Your task to perform on an android device: Go to calendar. Show me events next week Image 0: 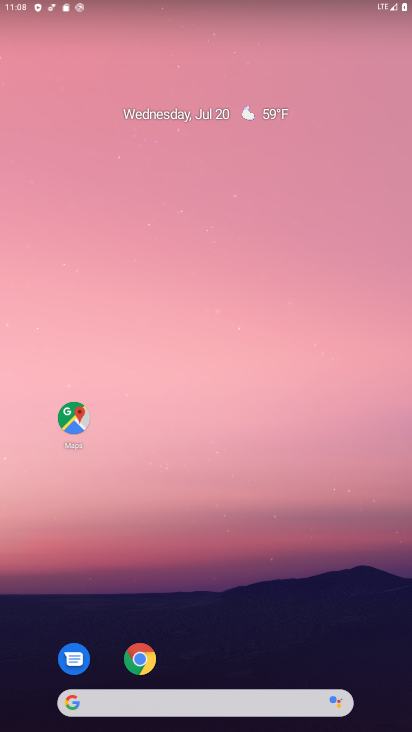
Step 0: drag from (211, 730) to (249, 119)
Your task to perform on an android device: Go to calendar. Show me events next week Image 1: 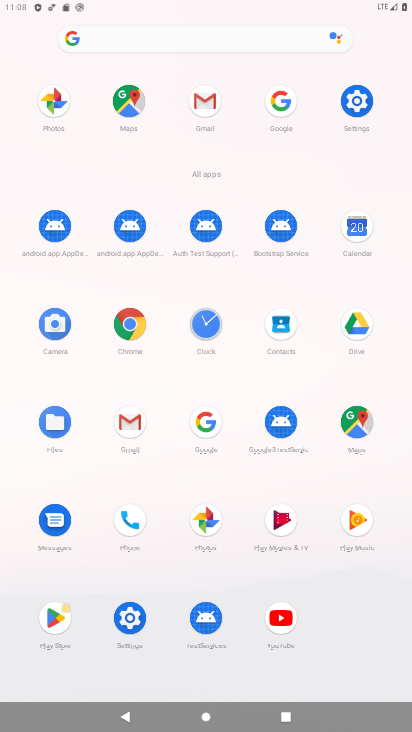
Step 1: click (358, 220)
Your task to perform on an android device: Go to calendar. Show me events next week Image 2: 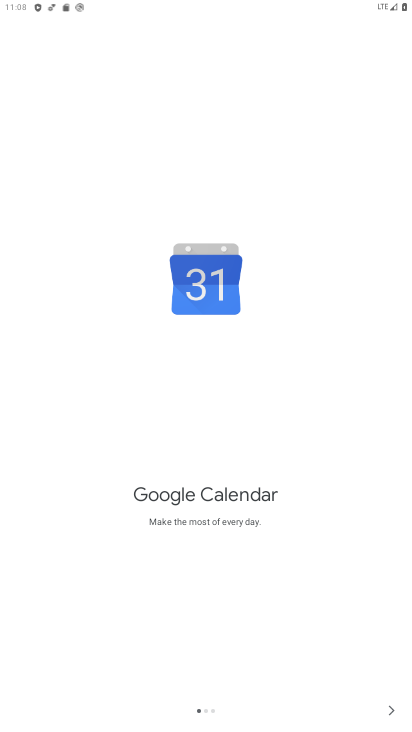
Step 2: click (394, 709)
Your task to perform on an android device: Go to calendar. Show me events next week Image 3: 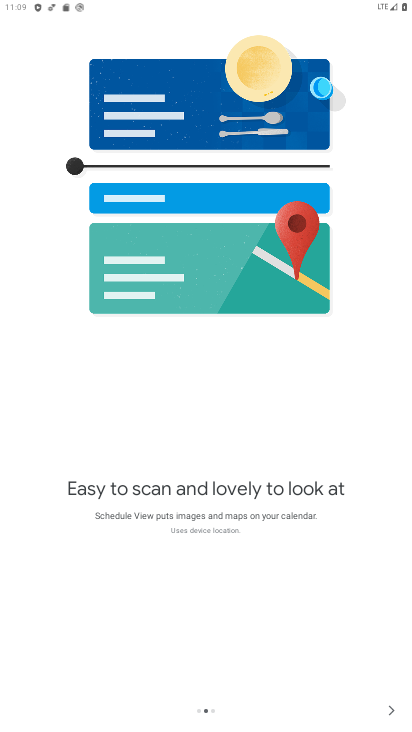
Step 3: click (391, 707)
Your task to perform on an android device: Go to calendar. Show me events next week Image 4: 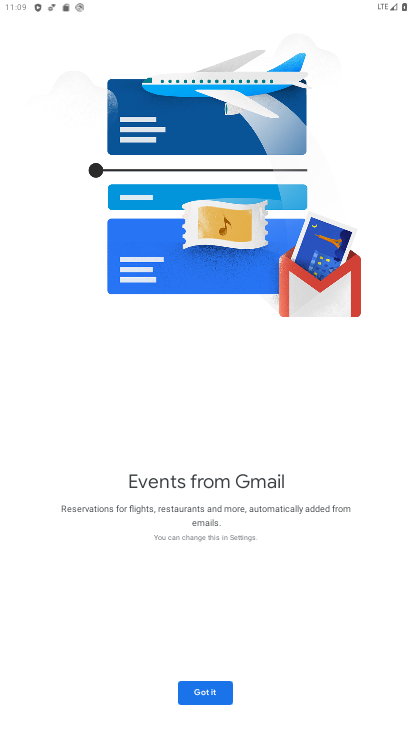
Step 4: click (204, 698)
Your task to perform on an android device: Go to calendar. Show me events next week Image 5: 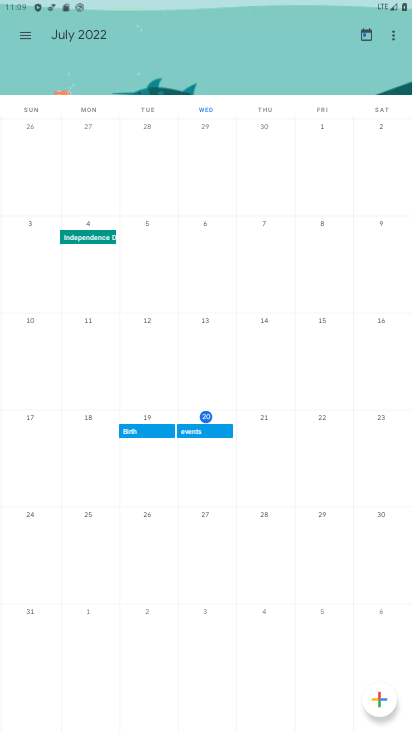
Step 5: click (16, 24)
Your task to perform on an android device: Go to calendar. Show me events next week Image 6: 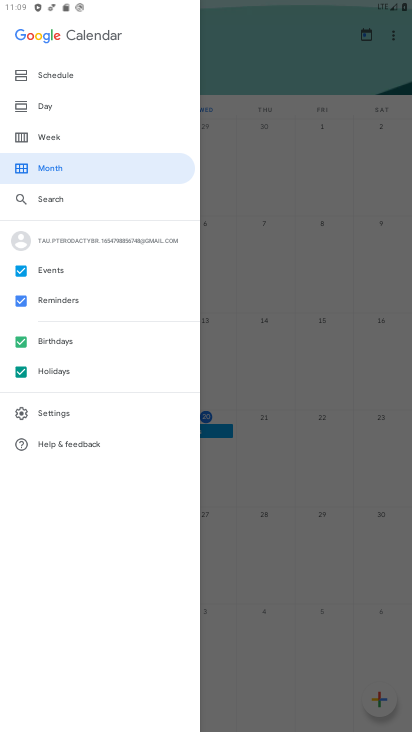
Step 6: click (21, 372)
Your task to perform on an android device: Go to calendar. Show me events next week Image 7: 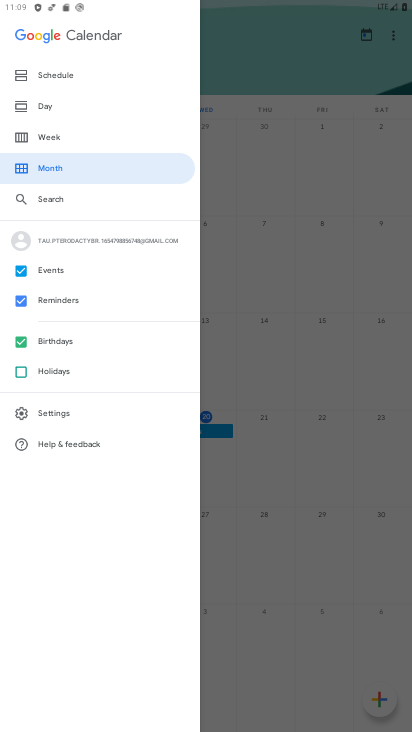
Step 7: click (22, 340)
Your task to perform on an android device: Go to calendar. Show me events next week Image 8: 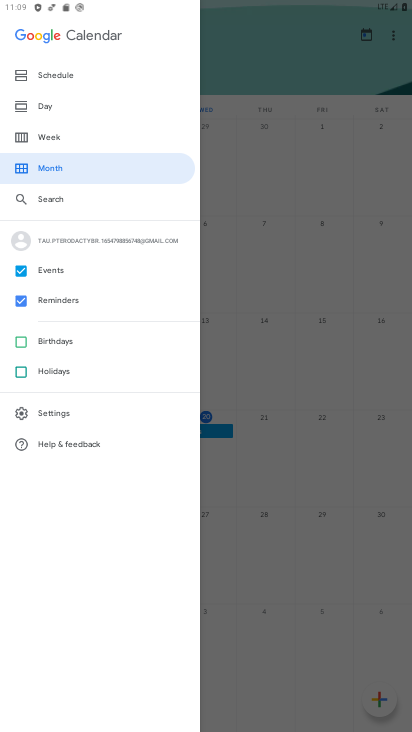
Step 8: click (26, 299)
Your task to perform on an android device: Go to calendar. Show me events next week Image 9: 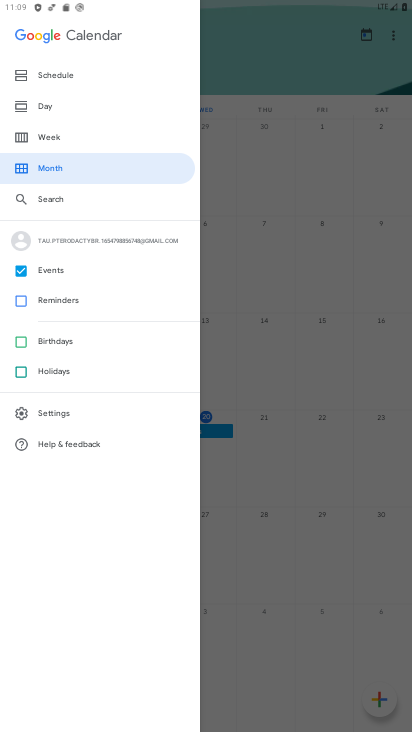
Step 9: click (55, 135)
Your task to perform on an android device: Go to calendar. Show me events next week Image 10: 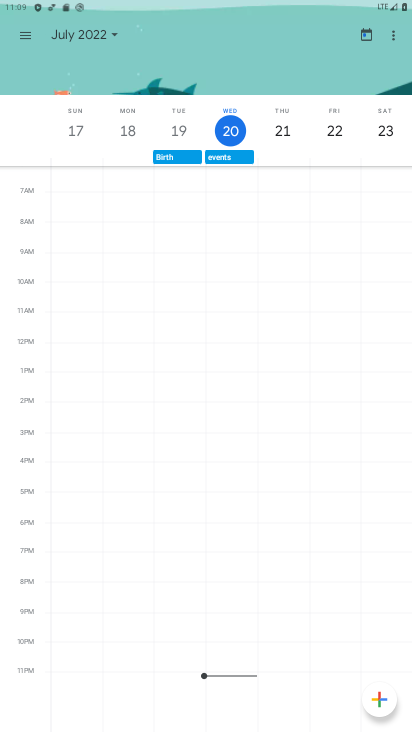
Step 10: task complete